Your task to perform on an android device: turn on wifi Image 0: 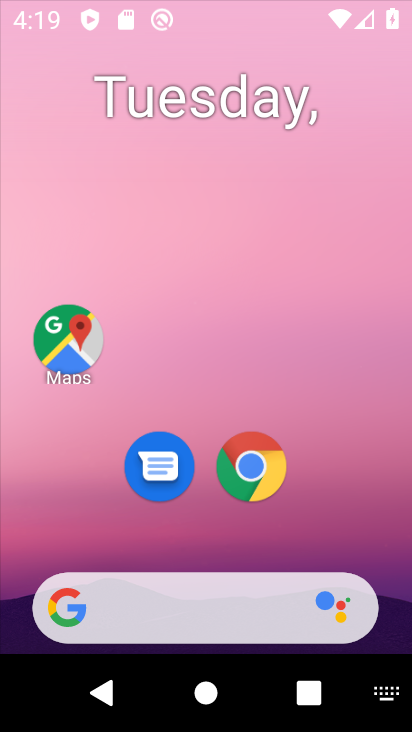
Step 0: click (395, 645)
Your task to perform on an android device: turn on wifi Image 1: 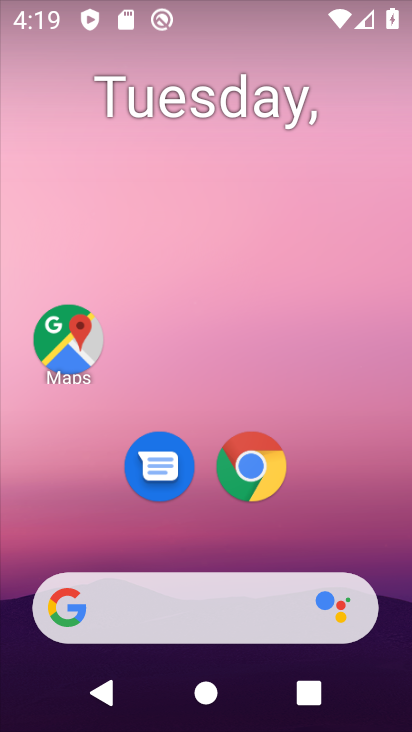
Step 1: drag from (99, 568) to (299, 44)
Your task to perform on an android device: turn on wifi Image 2: 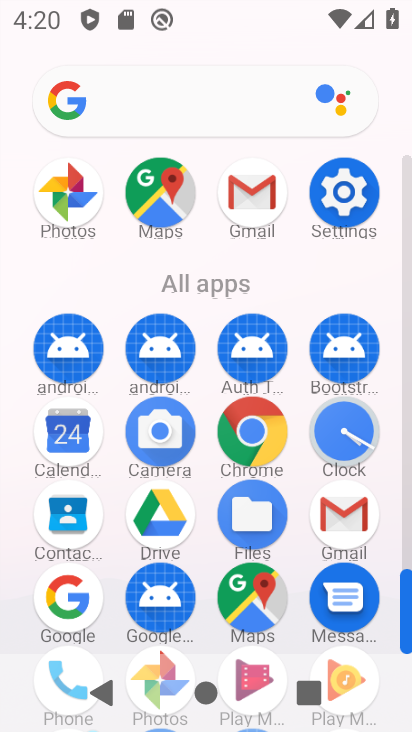
Step 2: click (355, 190)
Your task to perform on an android device: turn on wifi Image 3: 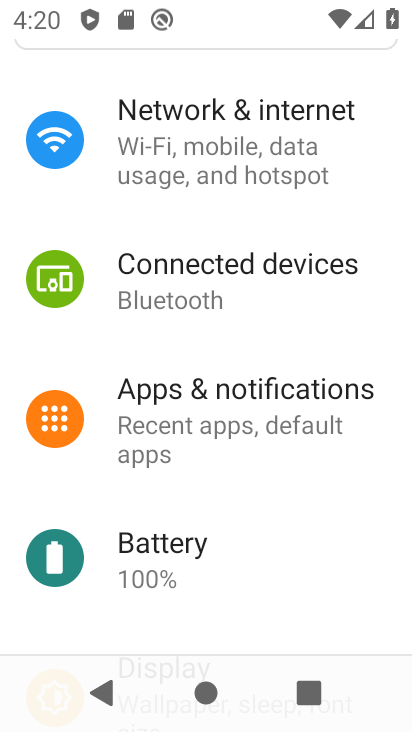
Step 3: drag from (198, 201) to (202, 542)
Your task to perform on an android device: turn on wifi Image 4: 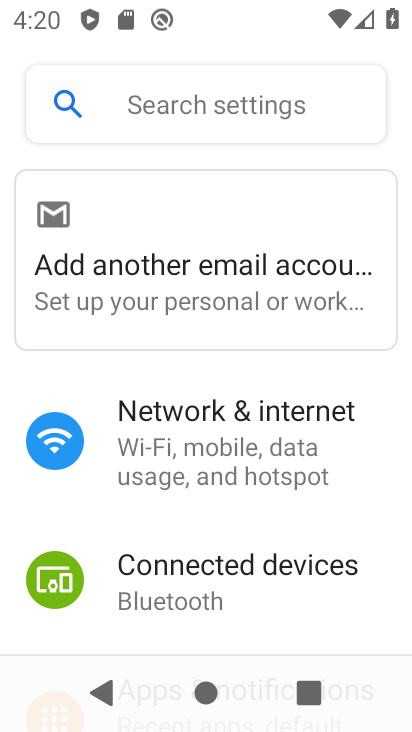
Step 4: click (277, 469)
Your task to perform on an android device: turn on wifi Image 5: 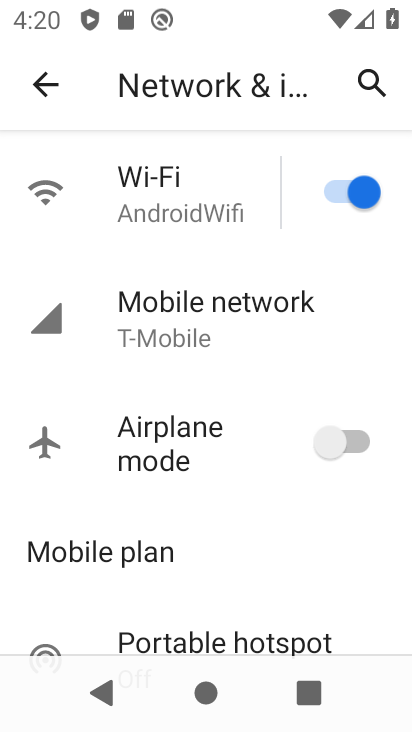
Step 5: task complete